Your task to perform on an android device: toggle wifi Image 0: 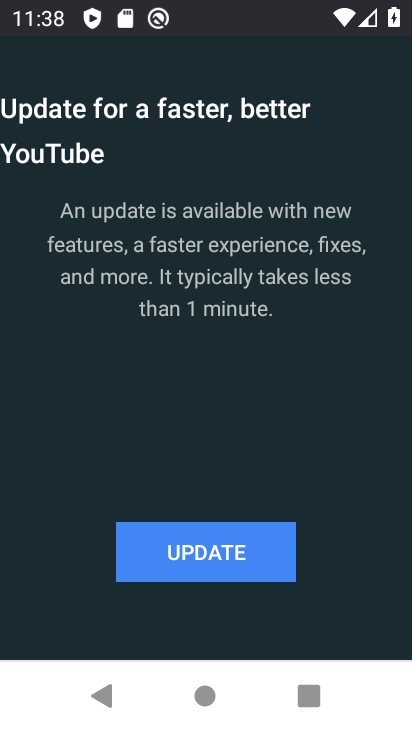
Step 0: press home button
Your task to perform on an android device: toggle wifi Image 1: 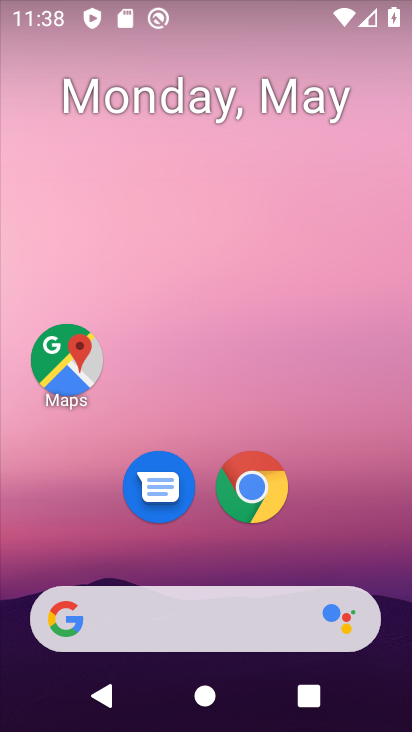
Step 1: drag from (186, 36) to (143, 492)
Your task to perform on an android device: toggle wifi Image 2: 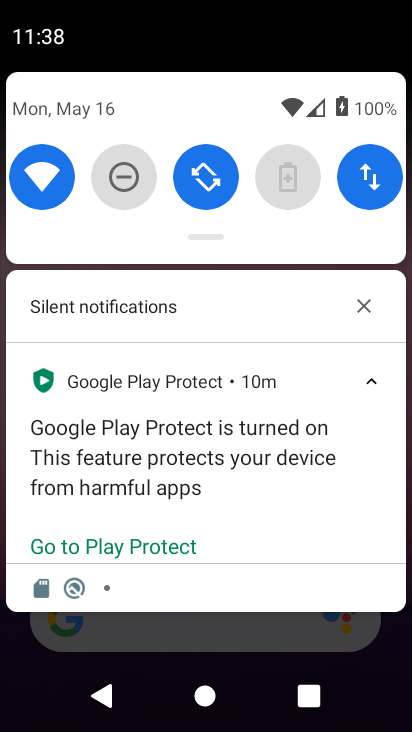
Step 2: click (37, 179)
Your task to perform on an android device: toggle wifi Image 3: 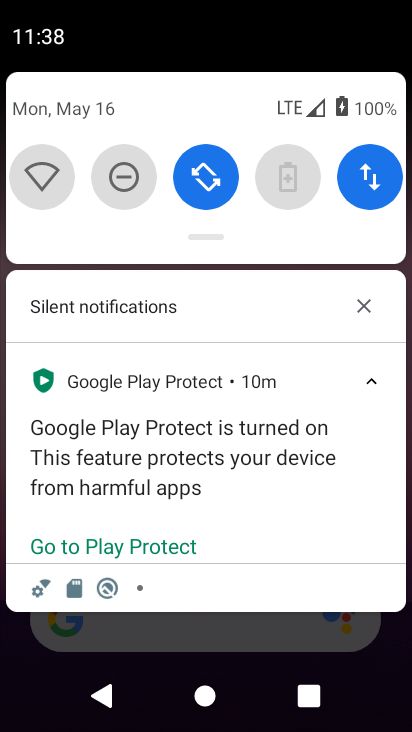
Step 3: task complete